Your task to perform on an android device: Open calendar and show me the fourth week of next month Image 0: 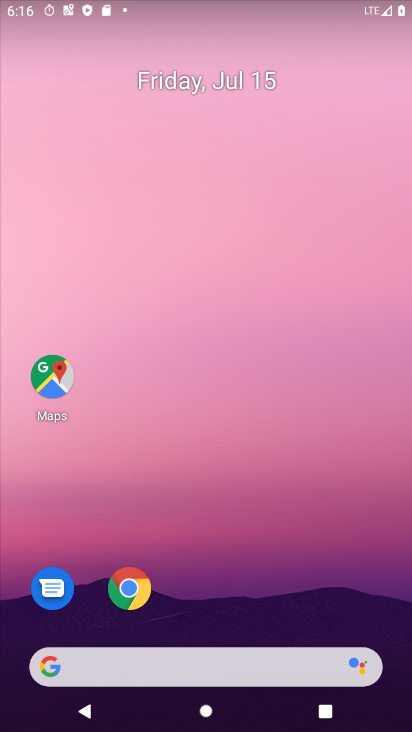
Step 0: drag from (271, 660) to (235, 34)
Your task to perform on an android device: Open calendar and show me the fourth week of next month Image 1: 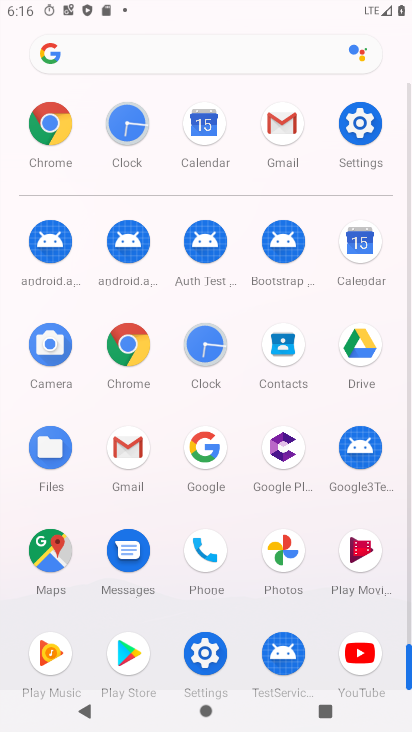
Step 1: click (366, 235)
Your task to perform on an android device: Open calendar and show me the fourth week of next month Image 2: 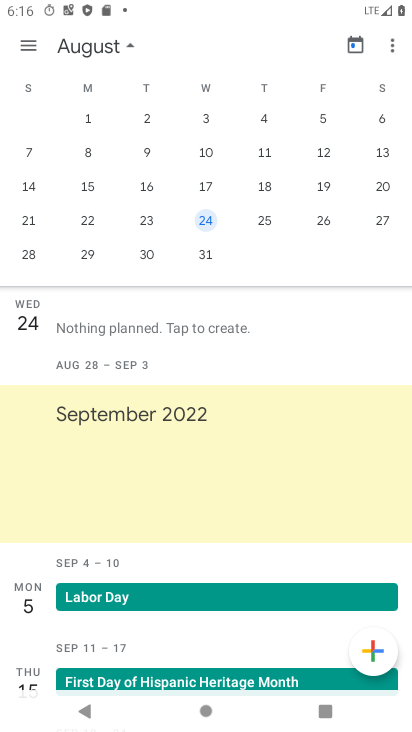
Step 2: click (122, 45)
Your task to perform on an android device: Open calendar and show me the fourth week of next month Image 3: 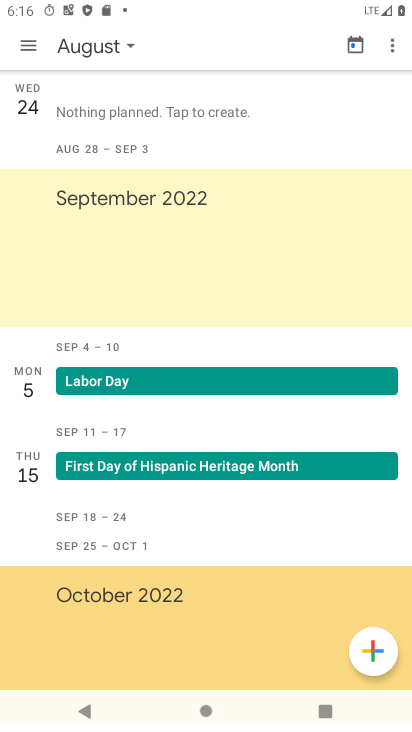
Step 3: click (130, 40)
Your task to perform on an android device: Open calendar and show me the fourth week of next month Image 4: 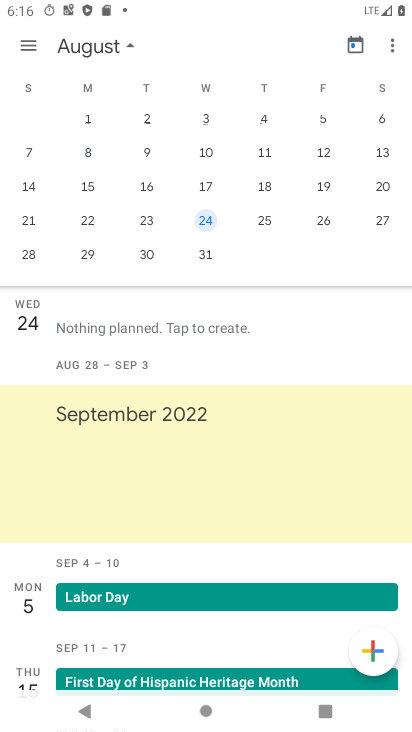
Step 4: drag from (321, 177) to (0, 253)
Your task to perform on an android device: Open calendar and show me the fourth week of next month Image 5: 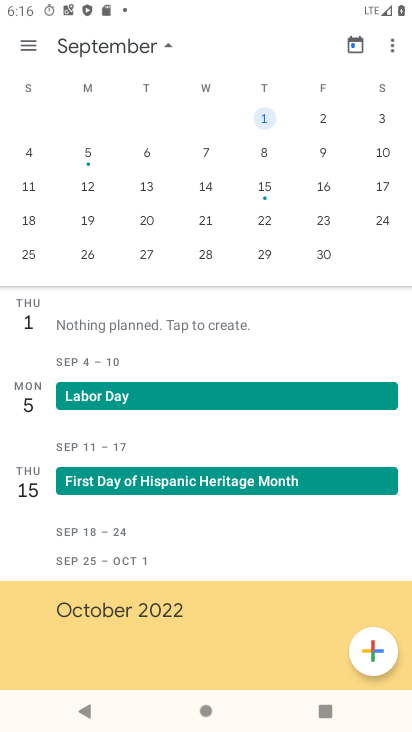
Step 5: drag from (114, 189) to (362, 191)
Your task to perform on an android device: Open calendar and show me the fourth week of next month Image 6: 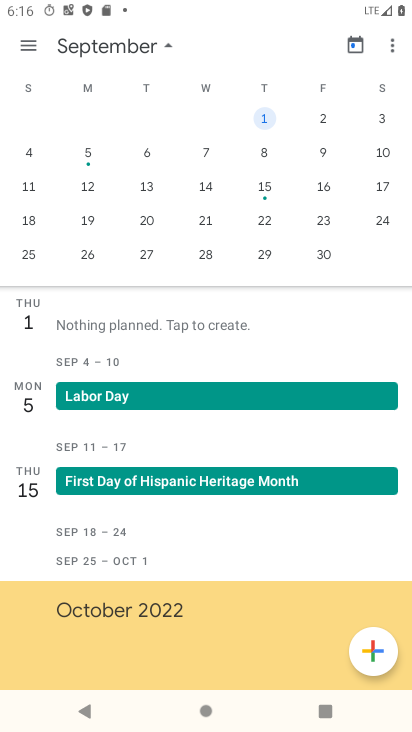
Step 6: click (210, 218)
Your task to perform on an android device: Open calendar and show me the fourth week of next month Image 7: 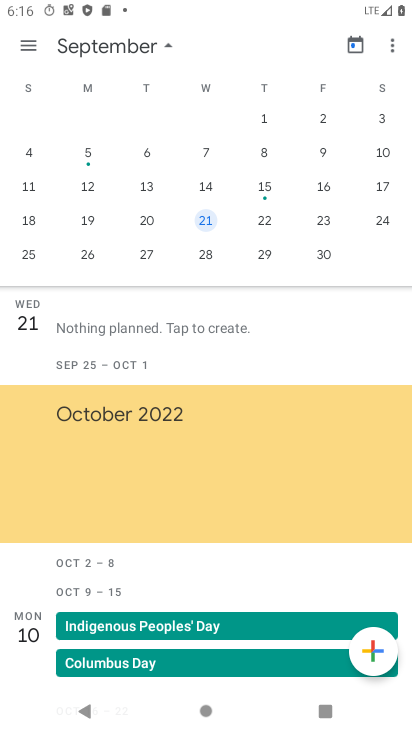
Step 7: task complete